Your task to perform on an android device: Open Reddit.com Image 0: 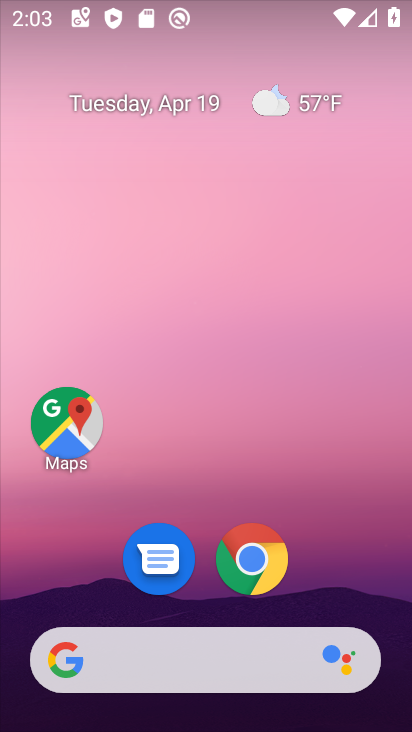
Step 0: press home button
Your task to perform on an android device: Open Reddit.com Image 1: 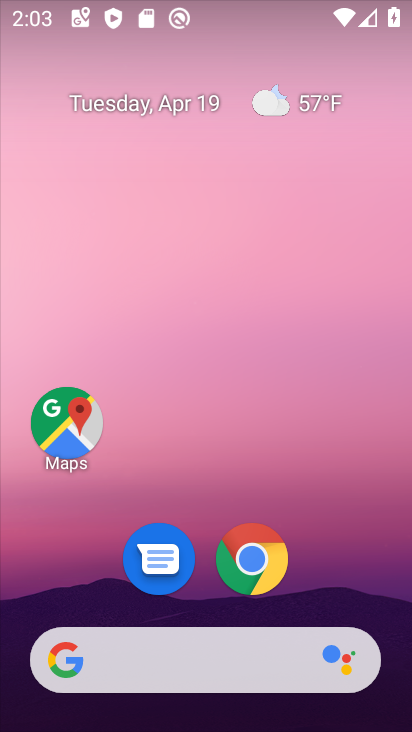
Step 1: drag from (209, 605) to (212, 114)
Your task to perform on an android device: Open Reddit.com Image 2: 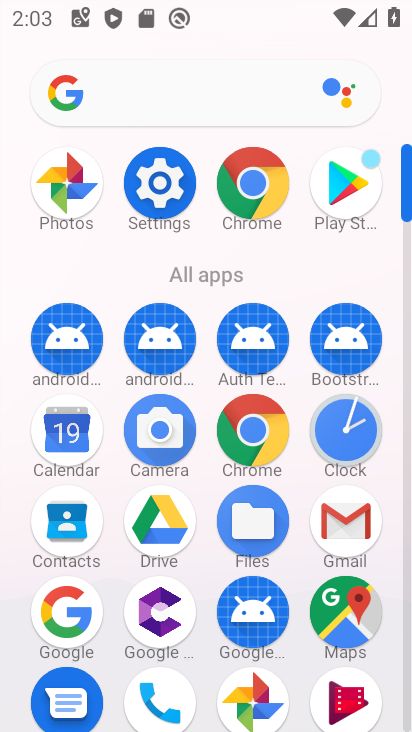
Step 2: click (253, 174)
Your task to perform on an android device: Open Reddit.com Image 3: 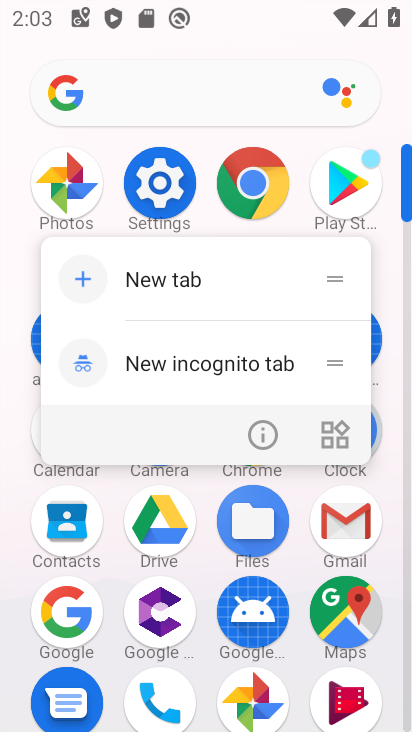
Step 3: click (250, 178)
Your task to perform on an android device: Open Reddit.com Image 4: 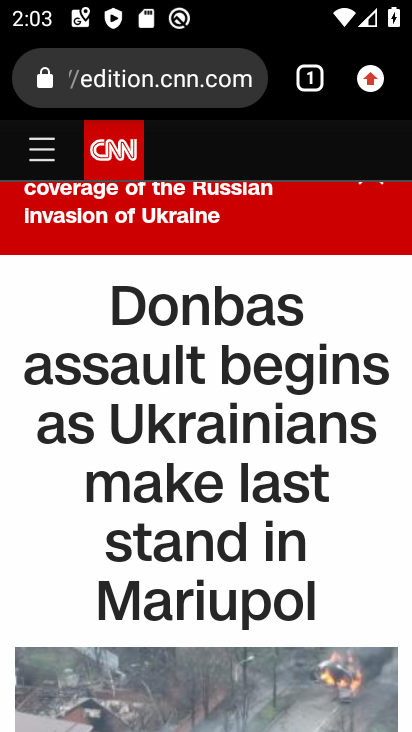
Step 4: click (312, 80)
Your task to perform on an android device: Open Reddit.com Image 5: 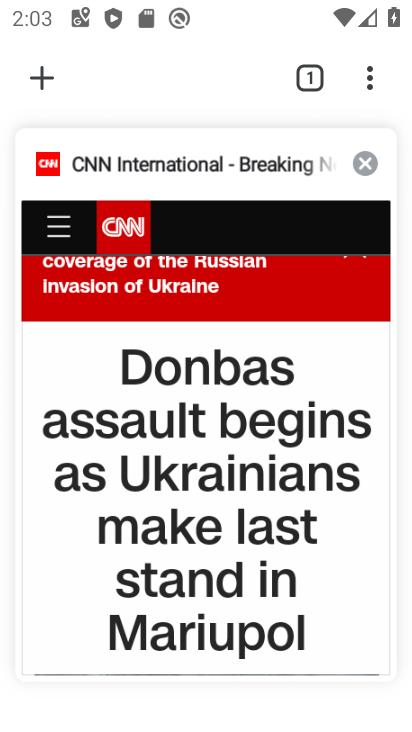
Step 5: click (42, 72)
Your task to perform on an android device: Open Reddit.com Image 6: 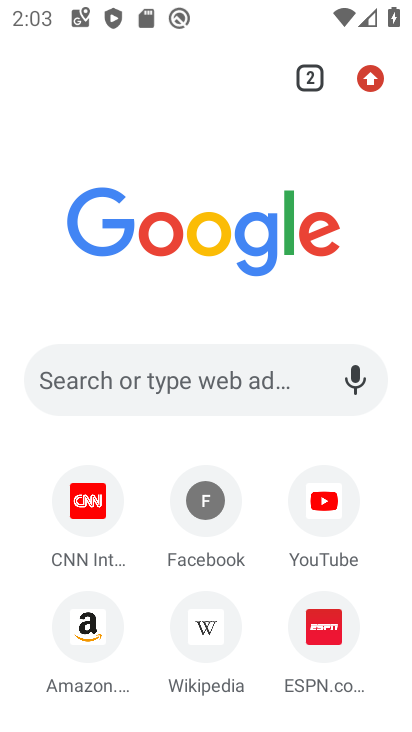
Step 6: click (151, 375)
Your task to perform on an android device: Open Reddit.com Image 7: 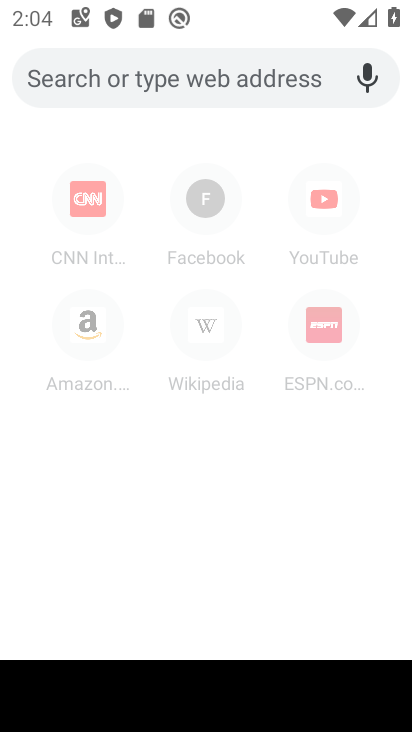
Step 7: type "reddit.com"
Your task to perform on an android device: Open Reddit.com Image 8: 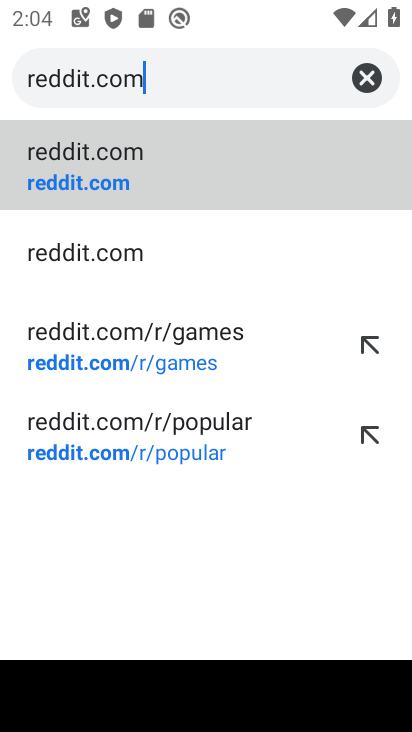
Step 8: click (141, 161)
Your task to perform on an android device: Open Reddit.com Image 9: 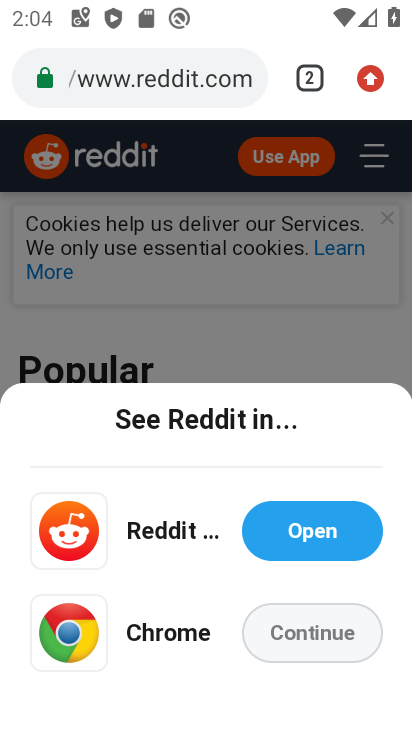
Step 9: click (304, 632)
Your task to perform on an android device: Open Reddit.com Image 10: 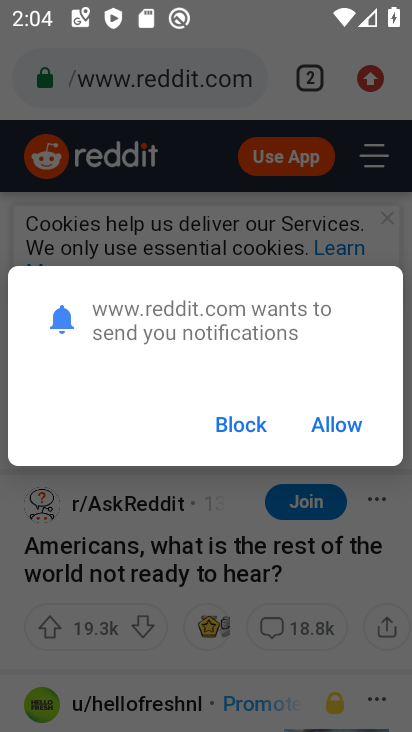
Step 10: click (237, 423)
Your task to perform on an android device: Open Reddit.com Image 11: 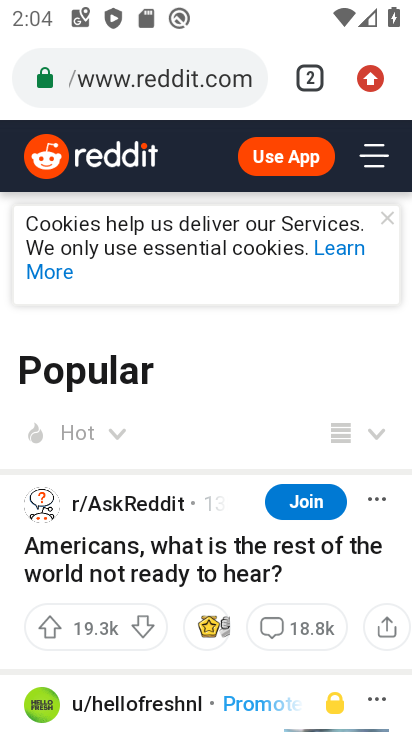
Step 11: task complete